Your task to perform on an android device: turn off airplane mode Image 0: 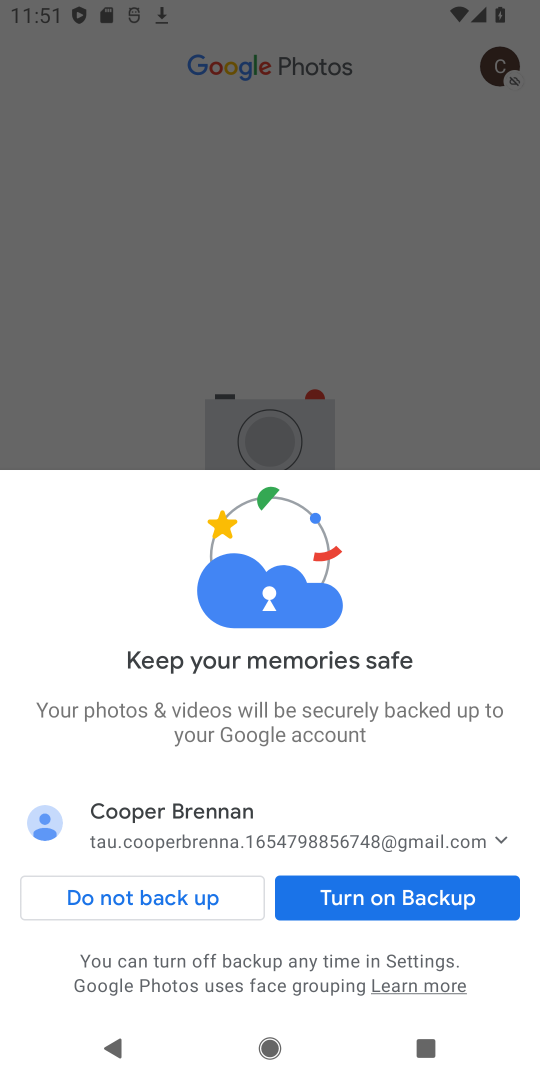
Step 0: press home button
Your task to perform on an android device: turn off airplane mode Image 1: 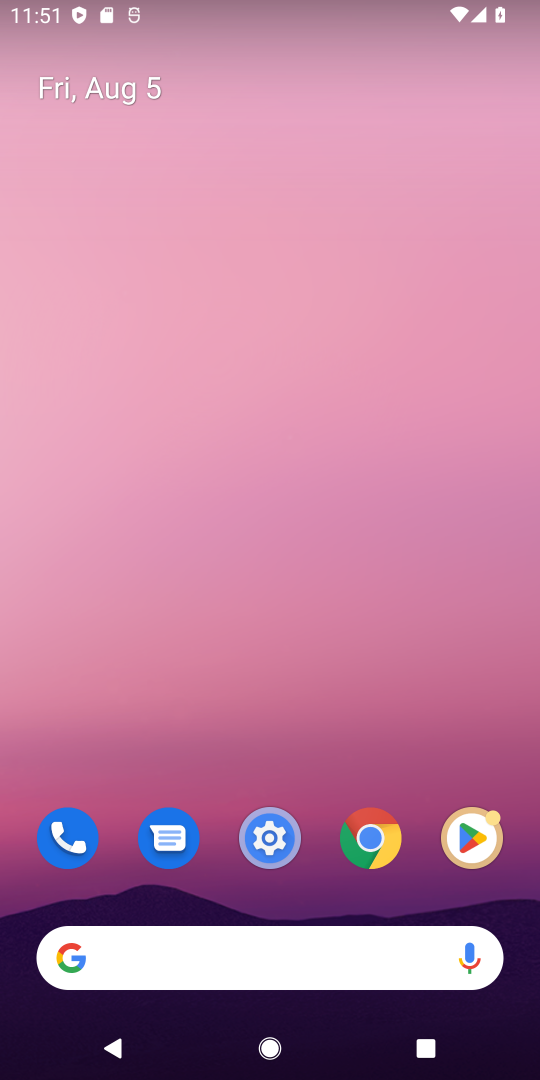
Step 1: drag from (318, 282) to (378, 1059)
Your task to perform on an android device: turn off airplane mode Image 2: 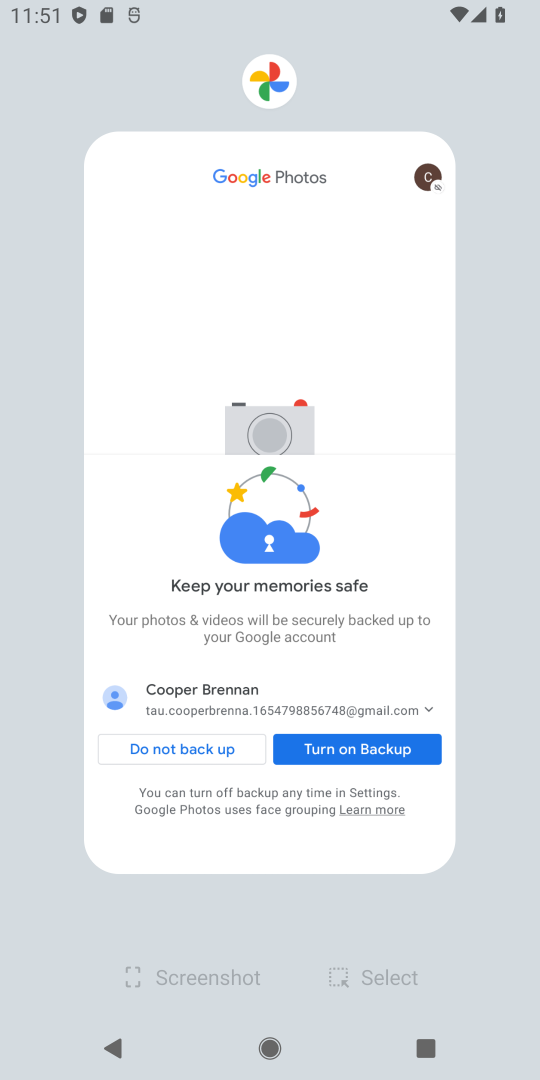
Step 2: press home button
Your task to perform on an android device: turn off airplane mode Image 3: 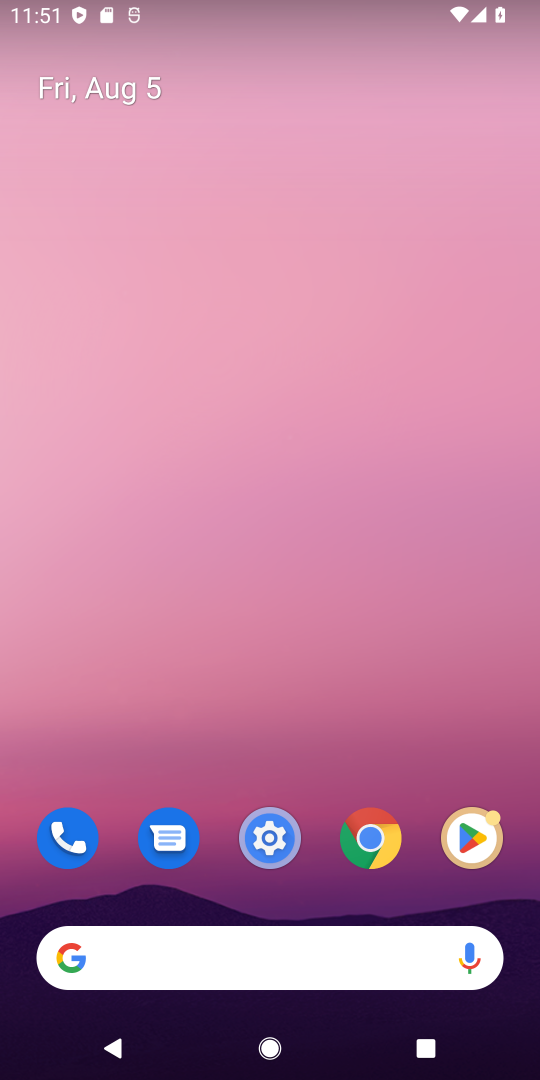
Step 3: drag from (304, 903) to (280, 246)
Your task to perform on an android device: turn off airplane mode Image 4: 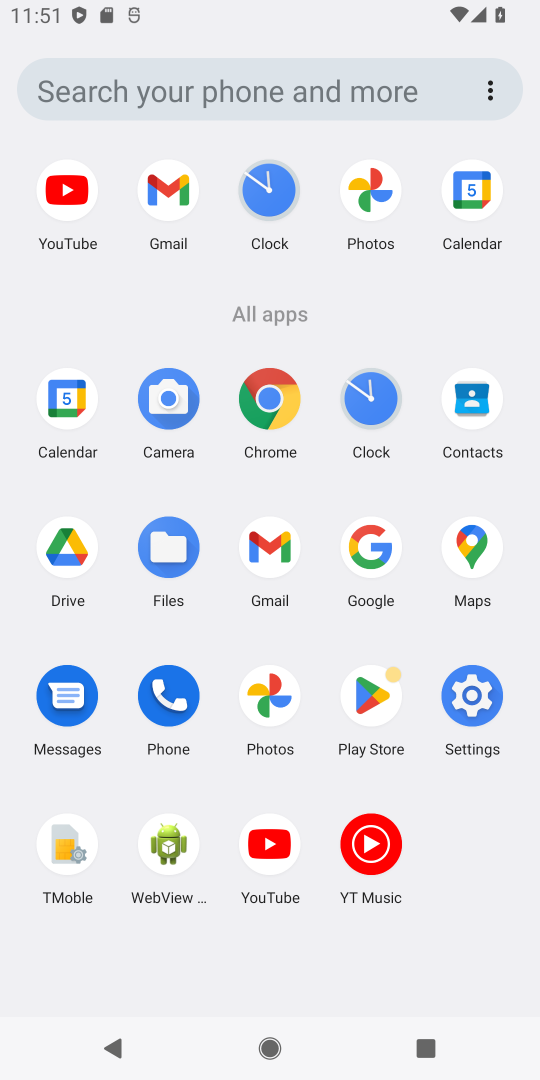
Step 4: click (464, 693)
Your task to perform on an android device: turn off airplane mode Image 5: 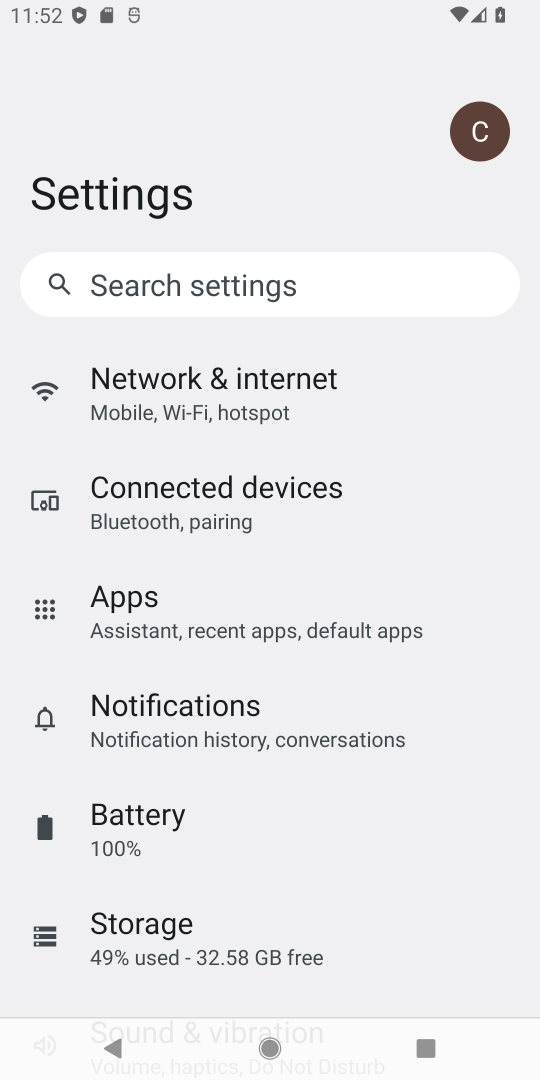
Step 5: click (301, 407)
Your task to perform on an android device: turn off airplane mode Image 6: 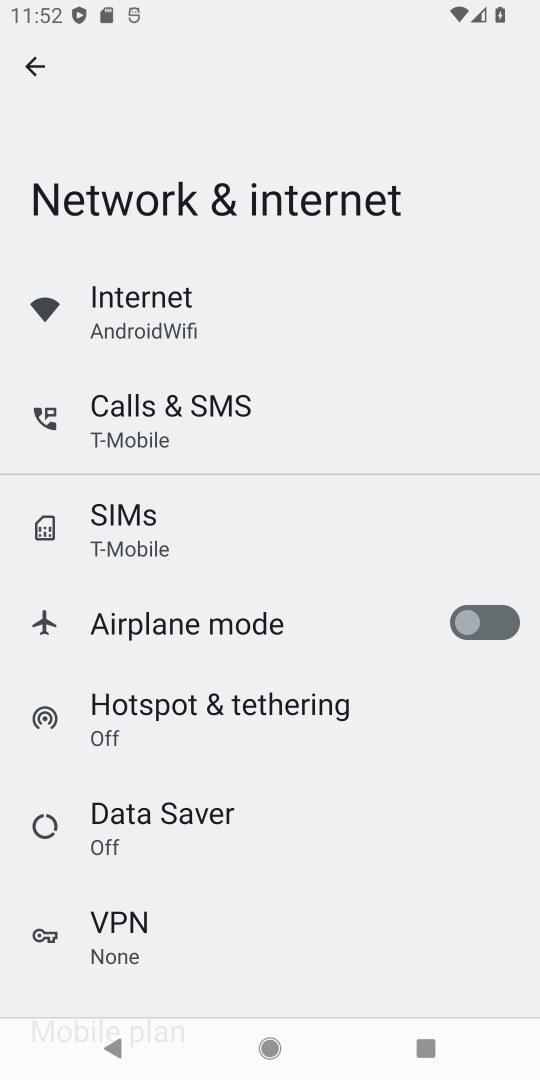
Step 6: task complete